Your task to perform on an android device: find which apps use the phone's location Image 0: 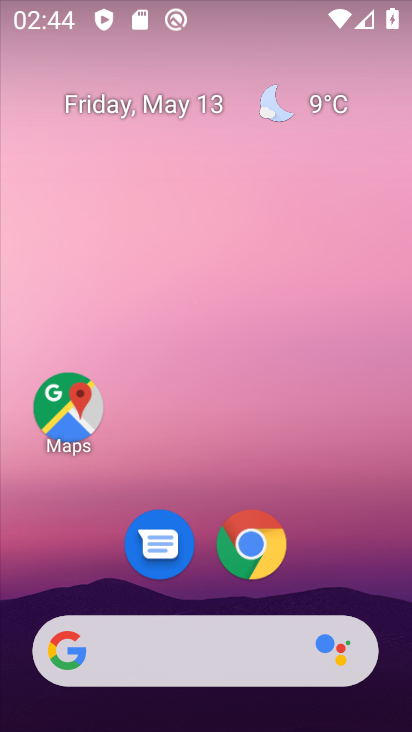
Step 0: drag from (358, 537) to (289, 20)
Your task to perform on an android device: find which apps use the phone's location Image 1: 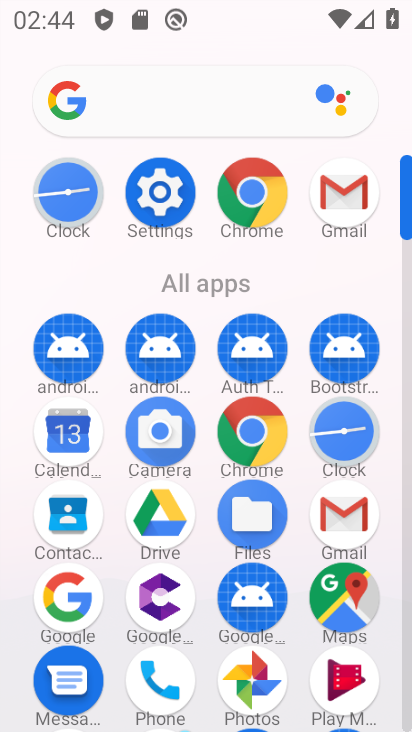
Step 1: click (157, 183)
Your task to perform on an android device: find which apps use the phone's location Image 2: 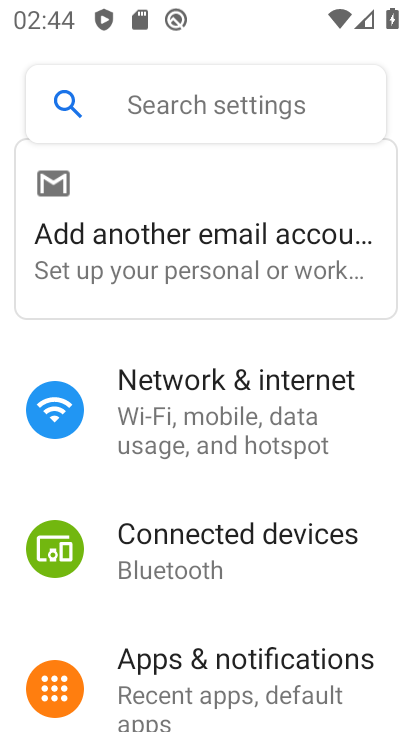
Step 2: drag from (248, 525) to (233, 175)
Your task to perform on an android device: find which apps use the phone's location Image 3: 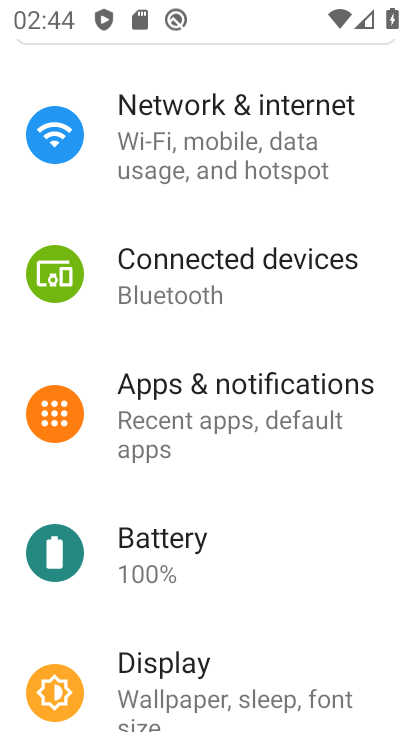
Step 3: drag from (184, 526) to (176, 138)
Your task to perform on an android device: find which apps use the phone's location Image 4: 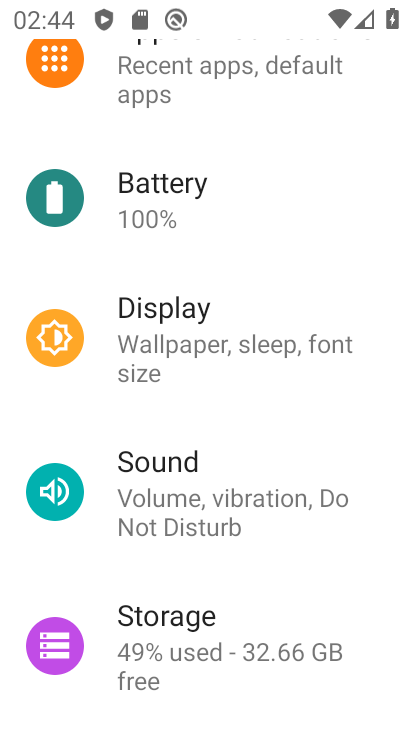
Step 4: drag from (195, 538) to (241, 157)
Your task to perform on an android device: find which apps use the phone's location Image 5: 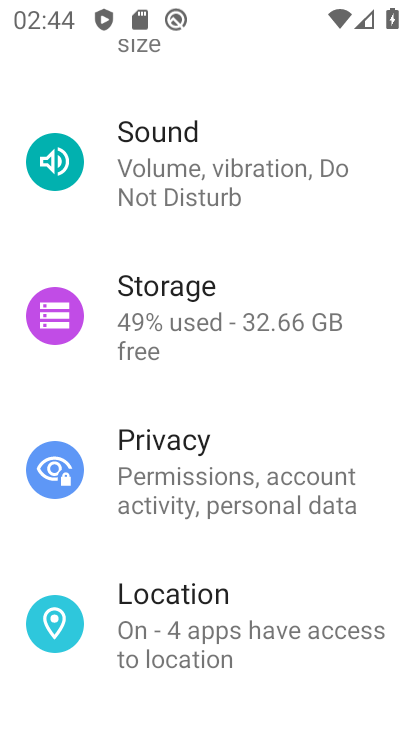
Step 5: drag from (257, 562) to (257, 221)
Your task to perform on an android device: find which apps use the phone's location Image 6: 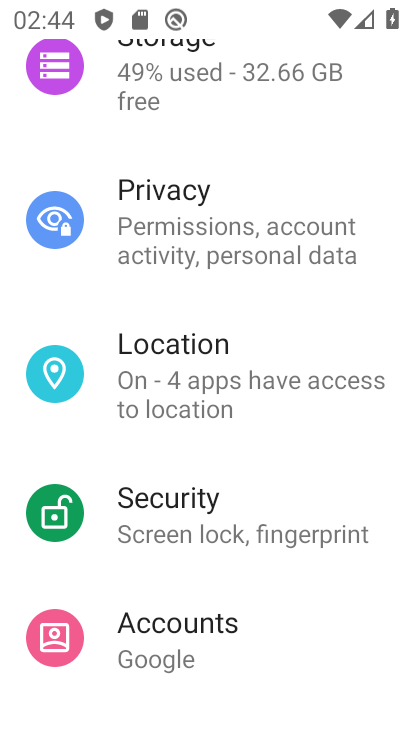
Step 6: click (210, 391)
Your task to perform on an android device: find which apps use the phone's location Image 7: 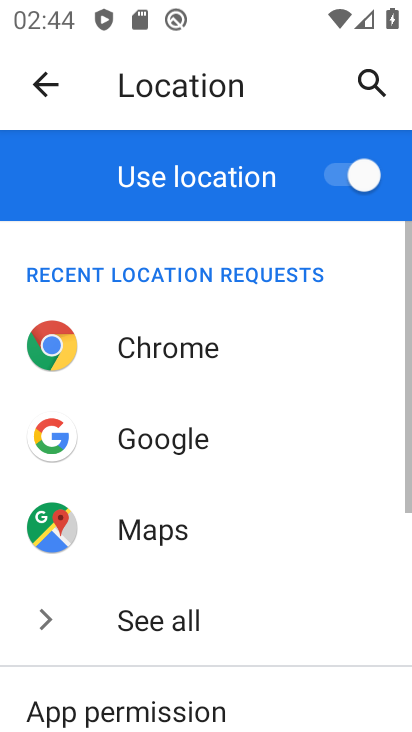
Step 7: drag from (242, 627) to (222, 162)
Your task to perform on an android device: find which apps use the phone's location Image 8: 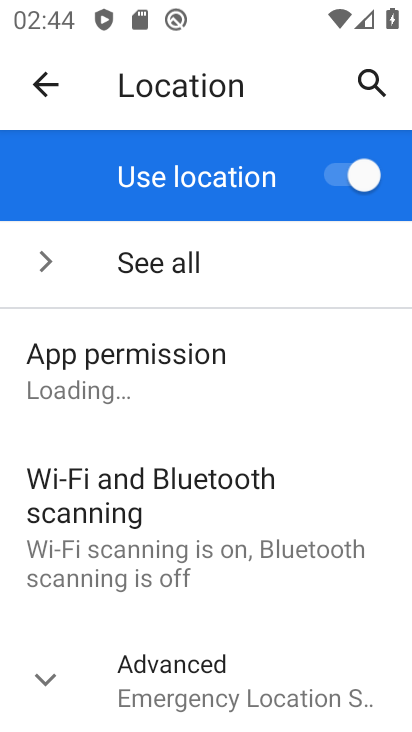
Step 8: drag from (228, 538) to (239, 274)
Your task to perform on an android device: find which apps use the phone's location Image 9: 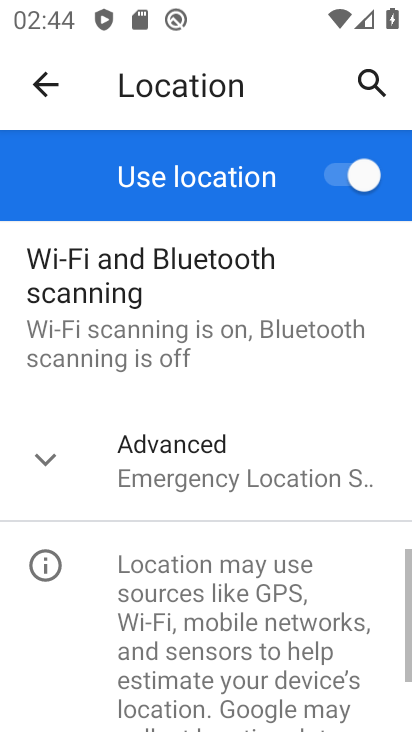
Step 9: click (37, 449)
Your task to perform on an android device: find which apps use the phone's location Image 10: 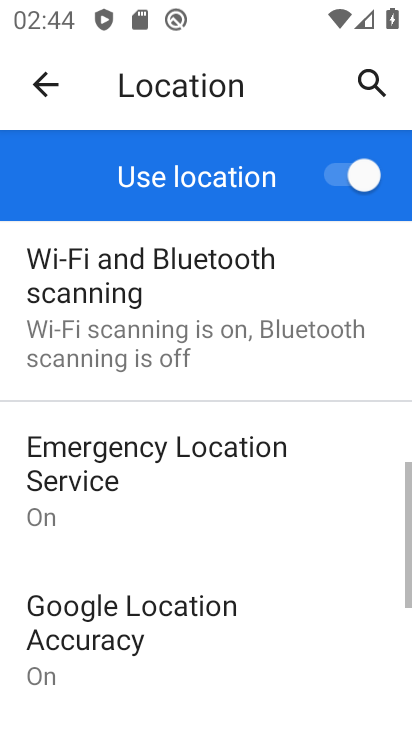
Step 10: drag from (245, 611) to (263, 281)
Your task to perform on an android device: find which apps use the phone's location Image 11: 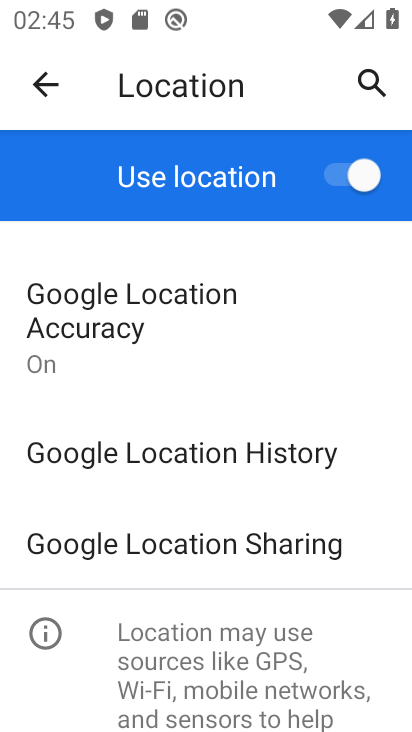
Step 11: drag from (249, 303) to (245, 692)
Your task to perform on an android device: find which apps use the phone's location Image 12: 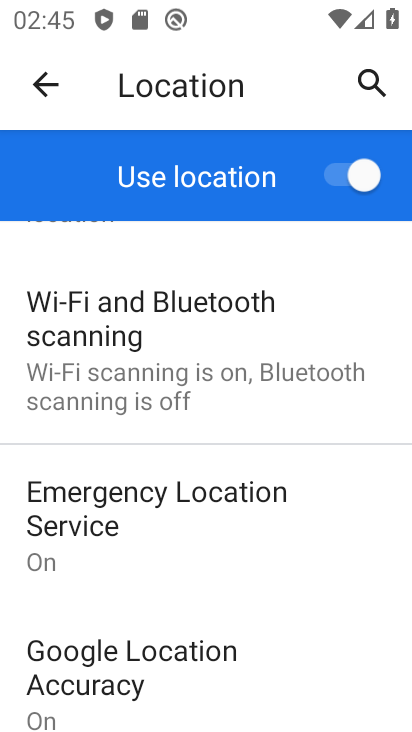
Step 12: drag from (271, 380) to (268, 650)
Your task to perform on an android device: find which apps use the phone's location Image 13: 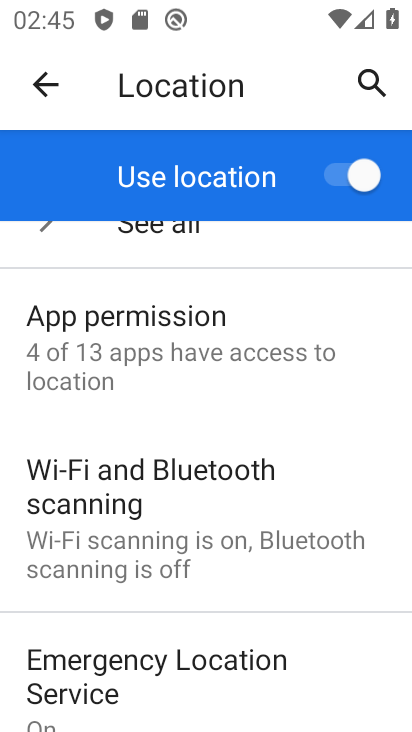
Step 13: click (209, 317)
Your task to perform on an android device: find which apps use the phone's location Image 14: 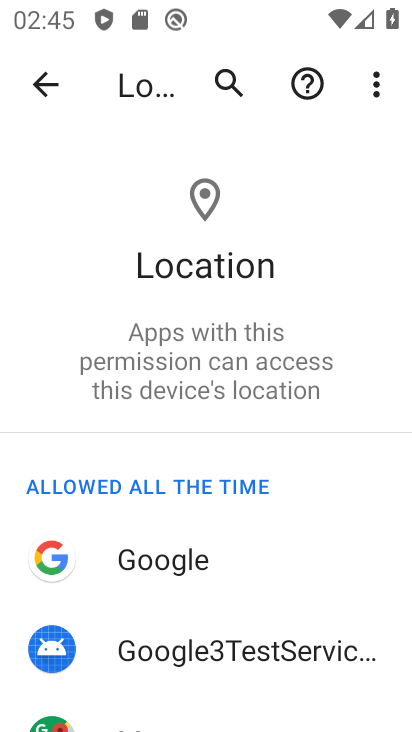
Step 14: task complete